Your task to perform on an android device: Is it going to rain this weekend? Image 0: 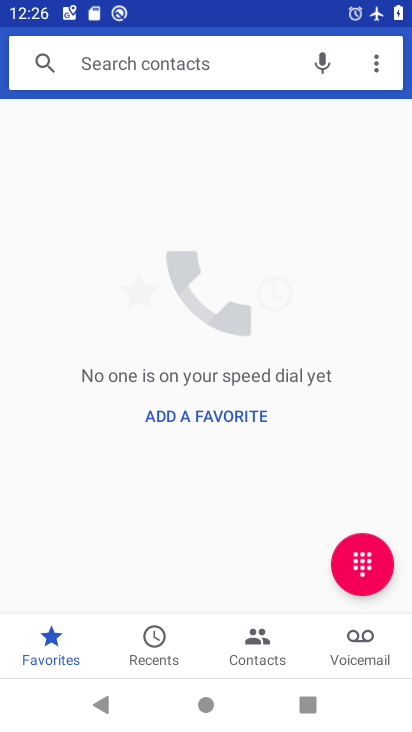
Step 0: press home button
Your task to perform on an android device: Is it going to rain this weekend? Image 1: 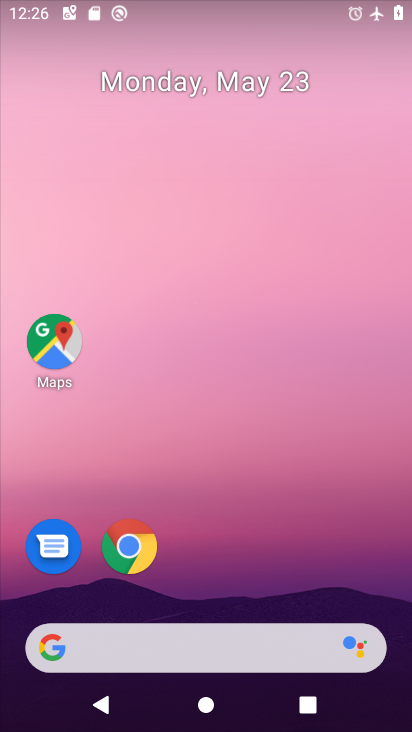
Step 1: drag from (227, 670) to (268, 187)
Your task to perform on an android device: Is it going to rain this weekend? Image 2: 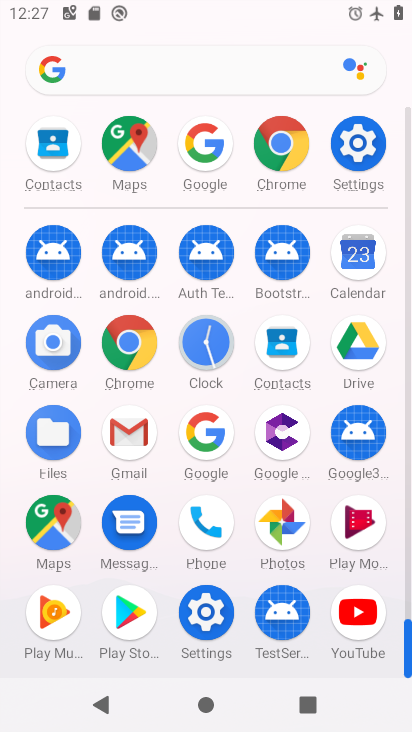
Step 2: click (217, 459)
Your task to perform on an android device: Is it going to rain this weekend? Image 3: 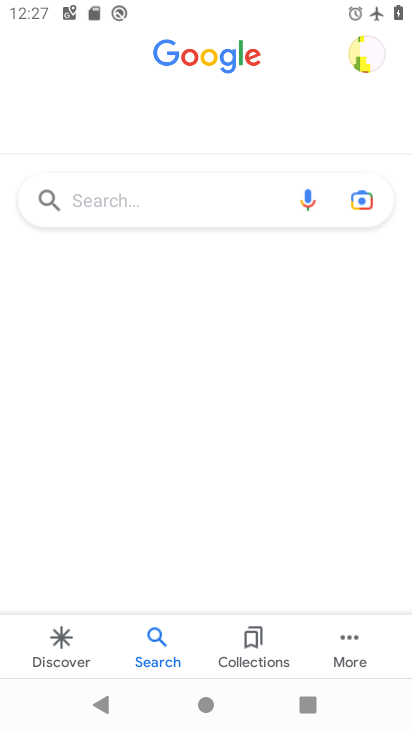
Step 3: click (161, 214)
Your task to perform on an android device: Is it going to rain this weekend? Image 4: 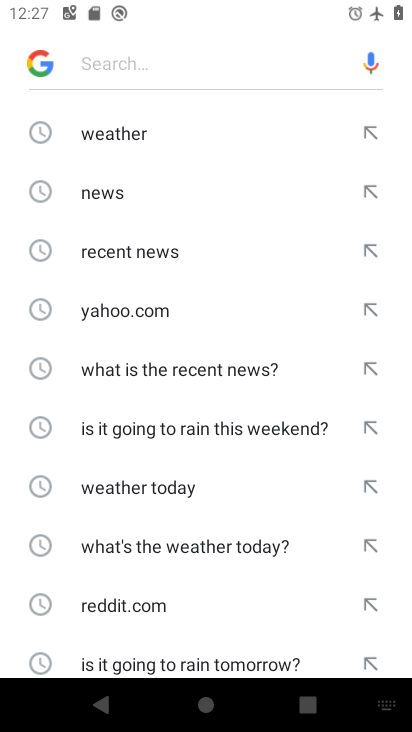
Step 4: click (154, 138)
Your task to perform on an android device: Is it going to rain this weekend? Image 5: 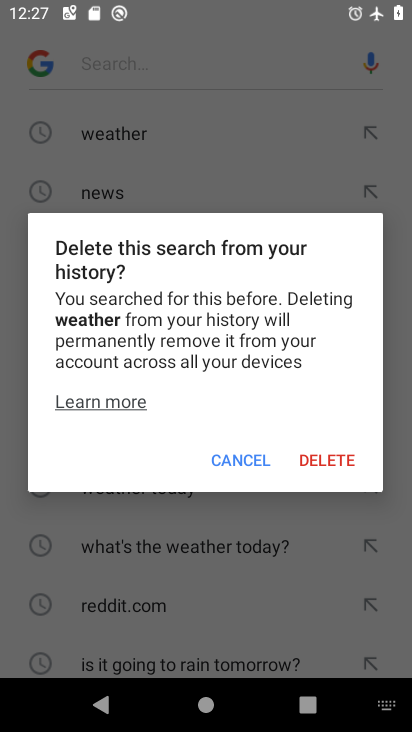
Step 5: click (241, 462)
Your task to perform on an android device: Is it going to rain this weekend? Image 6: 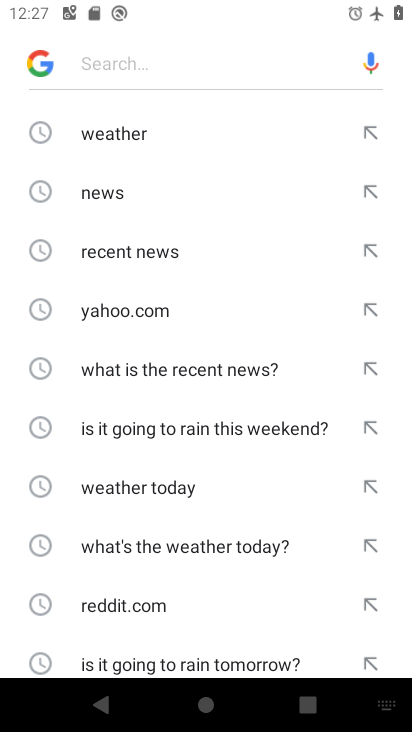
Step 6: click (194, 127)
Your task to perform on an android device: Is it going to rain this weekend? Image 7: 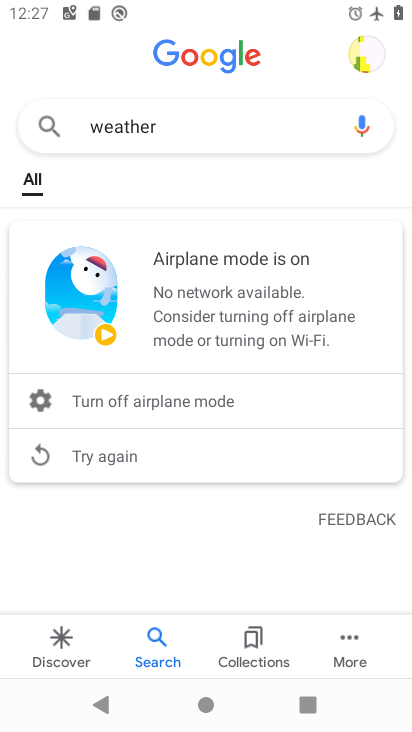
Step 7: task complete